Your task to perform on an android device: Go to privacy settings Image 0: 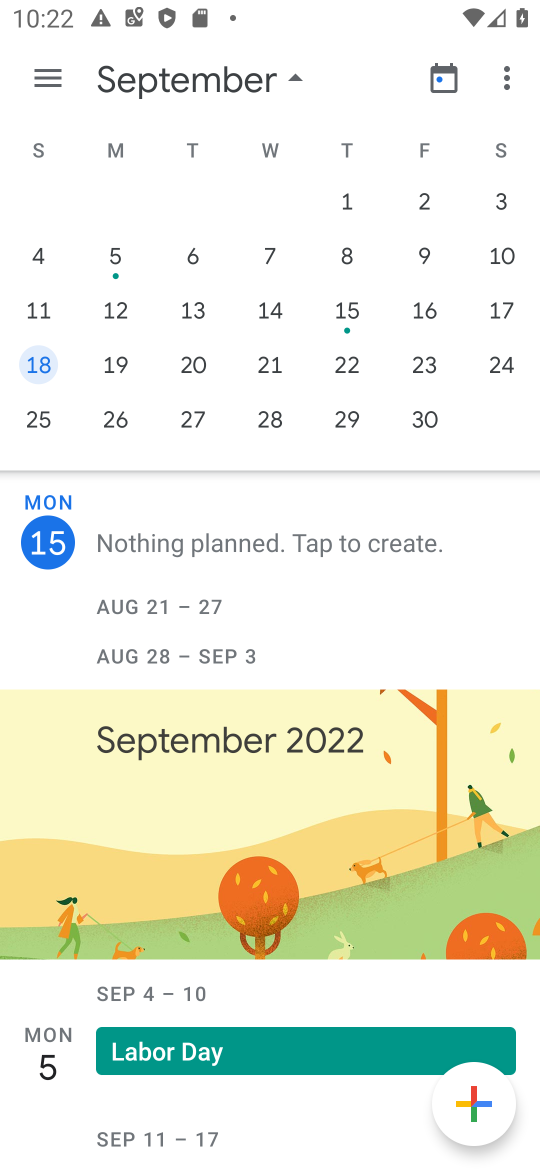
Step 0: press home button
Your task to perform on an android device: Go to privacy settings Image 1: 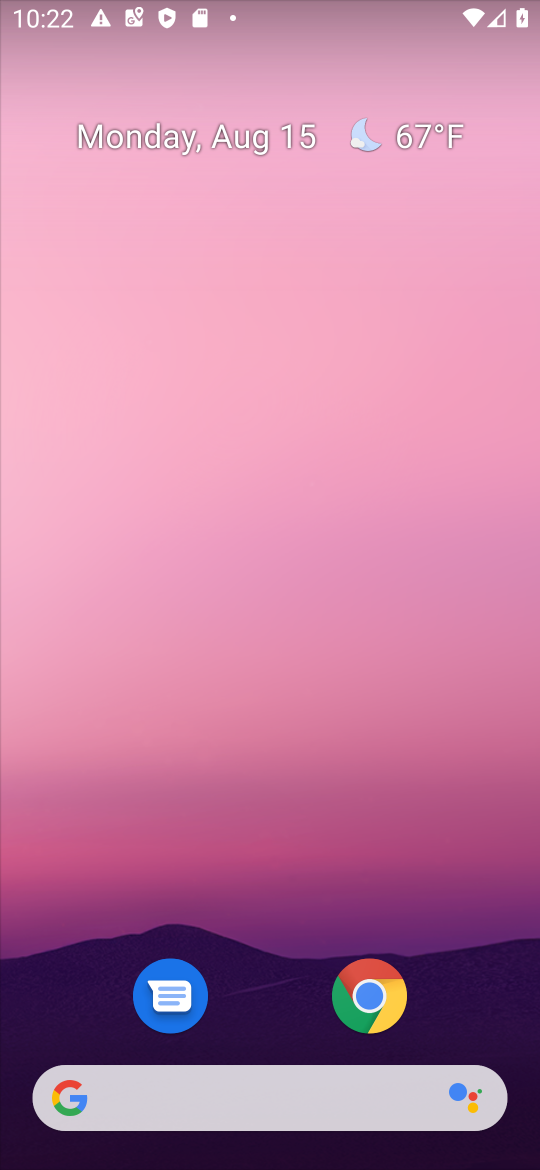
Step 1: drag from (186, 1099) to (320, 341)
Your task to perform on an android device: Go to privacy settings Image 2: 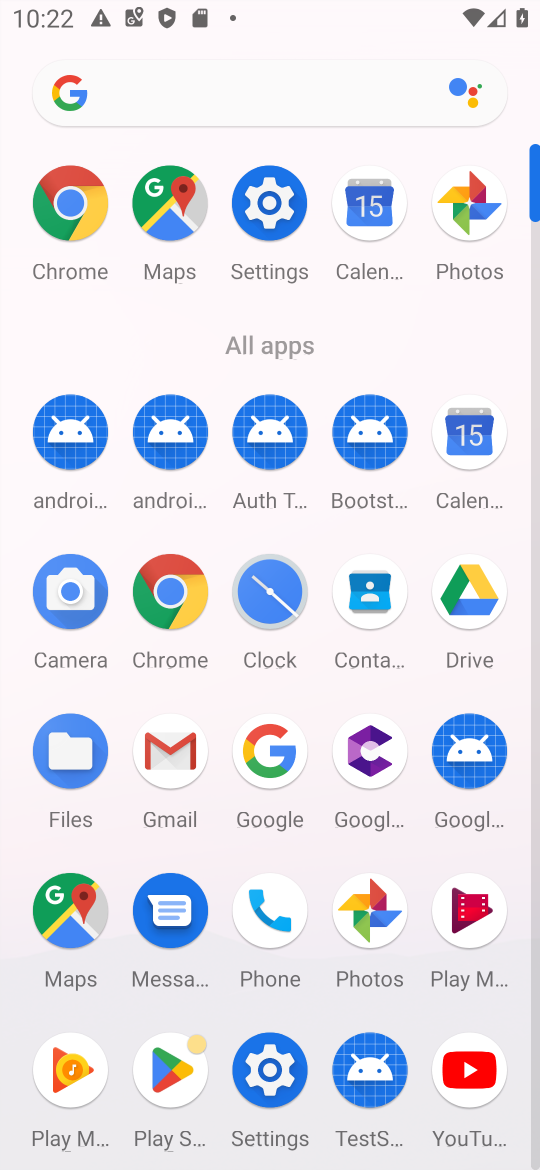
Step 2: click (263, 189)
Your task to perform on an android device: Go to privacy settings Image 3: 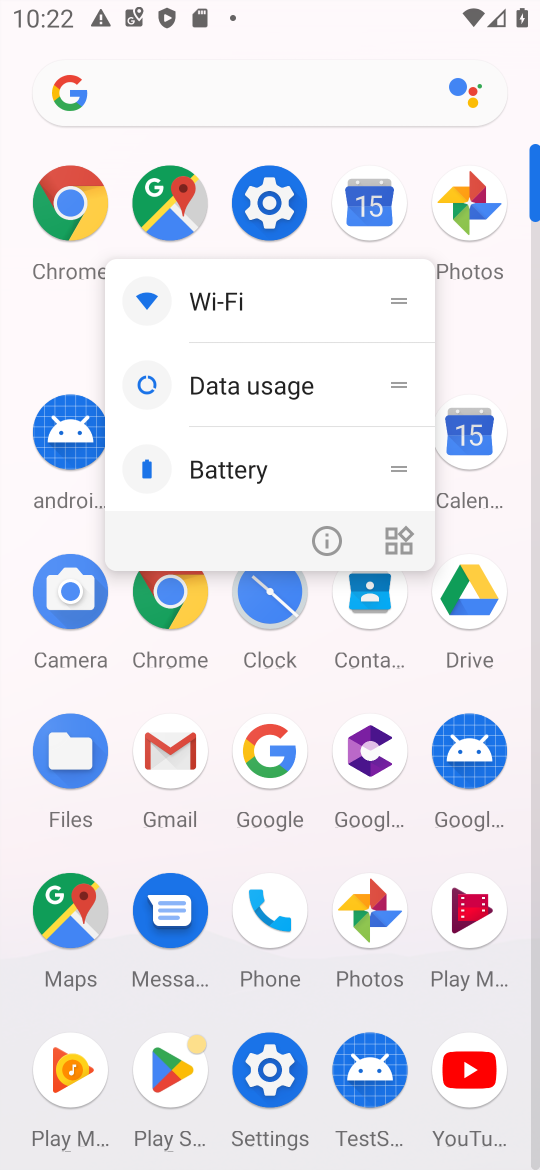
Step 3: click (271, 213)
Your task to perform on an android device: Go to privacy settings Image 4: 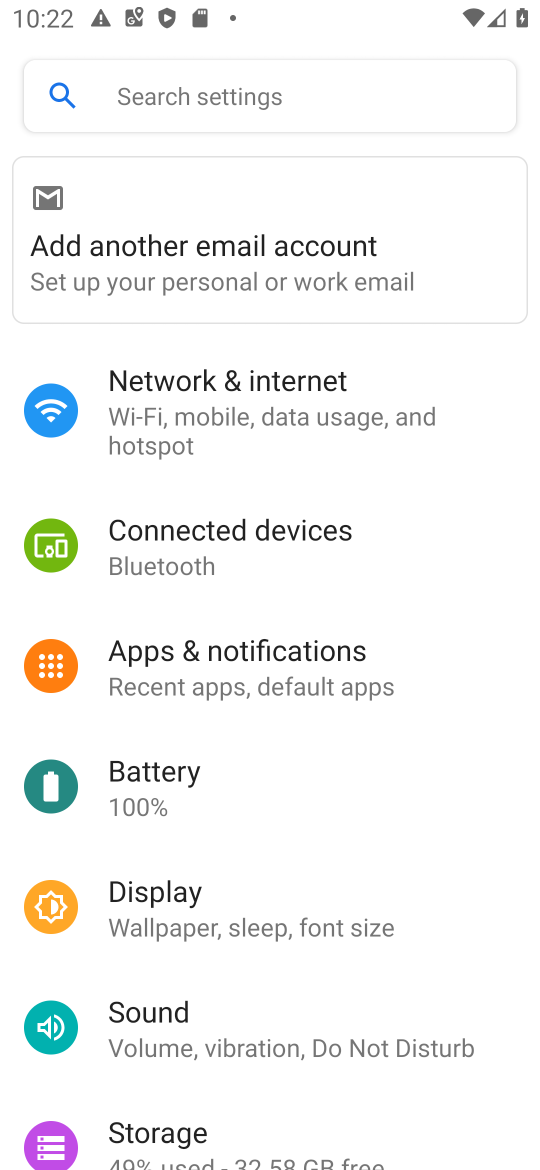
Step 4: drag from (233, 1043) to (301, 615)
Your task to perform on an android device: Go to privacy settings Image 5: 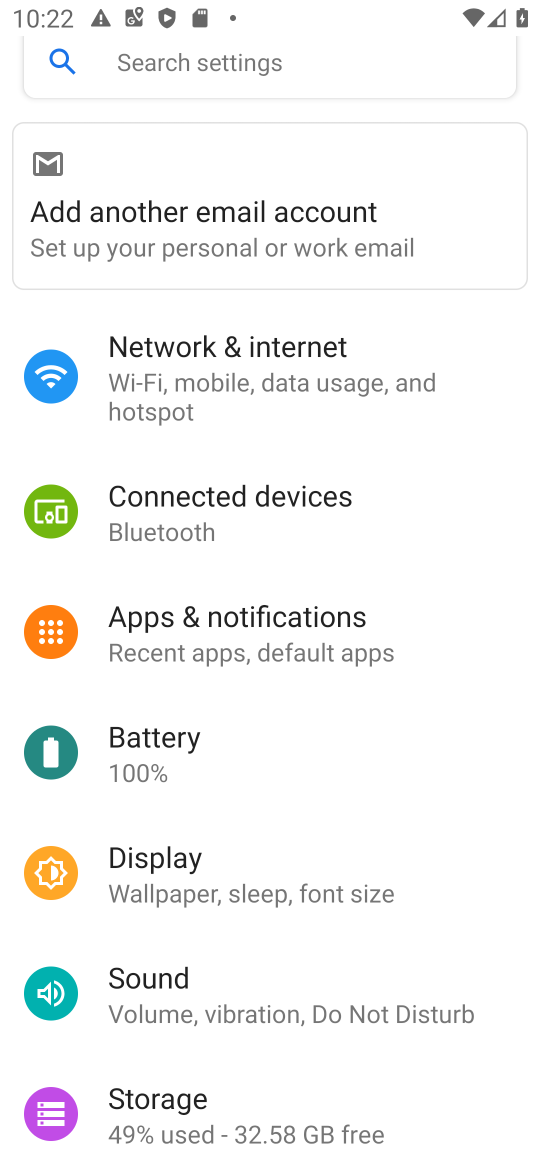
Step 5: drag from (234, 1077) to (279, 694)
Your task to perform on an android device: Go to privacy settings Image 6: 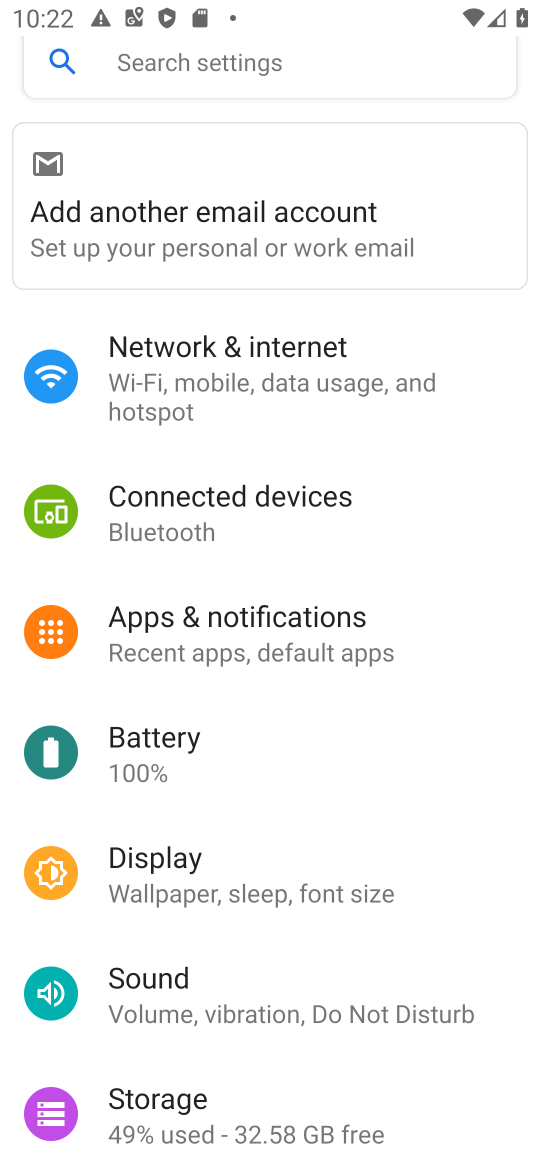
Step 6: drag from (202, 999) to (264, 476)
Your task to perform on an android device: Go to privacy settings Image 7: 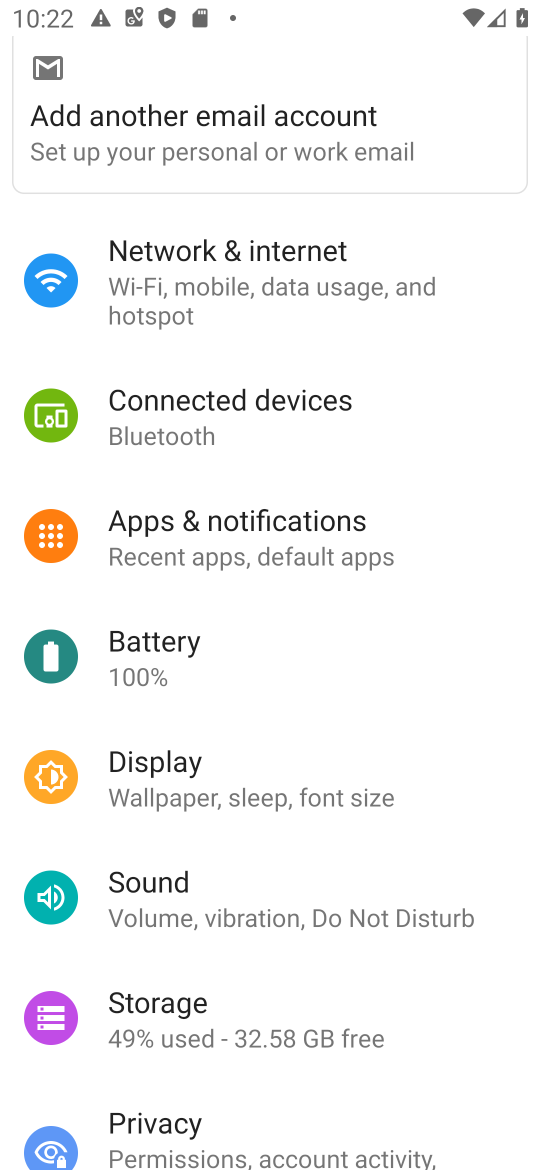
Step 7: click (190, 1142)
Your task to perform on an android device: Go to privacy settings Image 8: 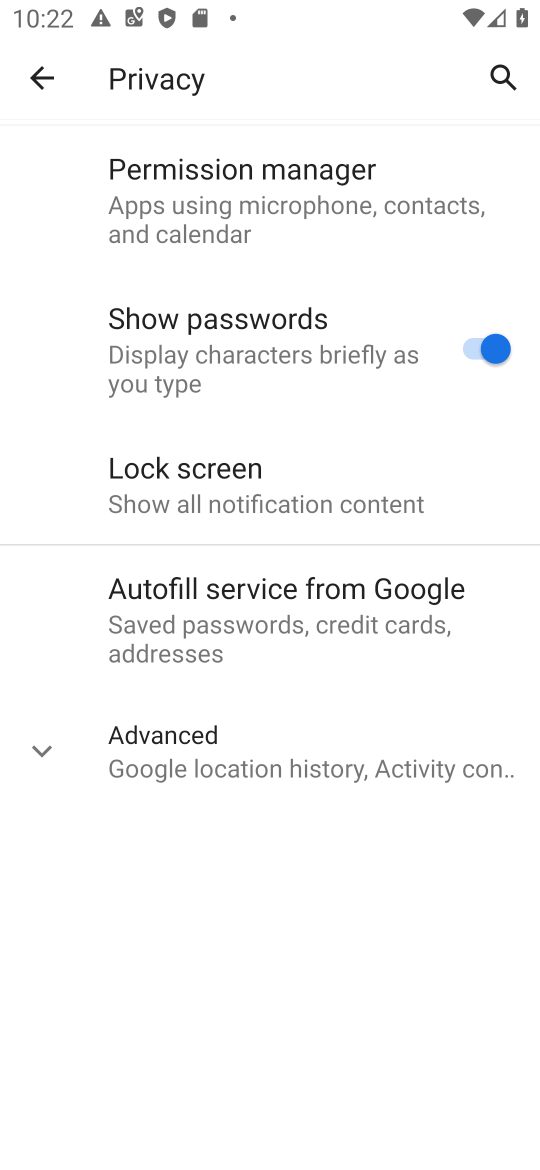
Step 8: click (216, 771)
Your task to perform on an android device: Go to privacy settings Image 9: 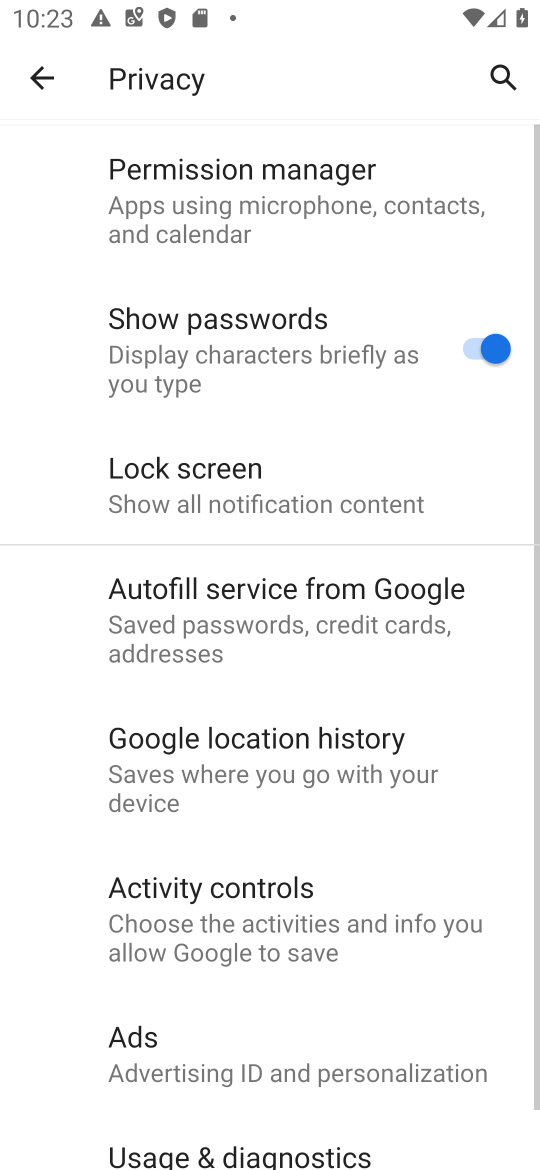
Step 9: task complete